Your task to perform on an android device: open a bookmark in the chrome app Image 0: 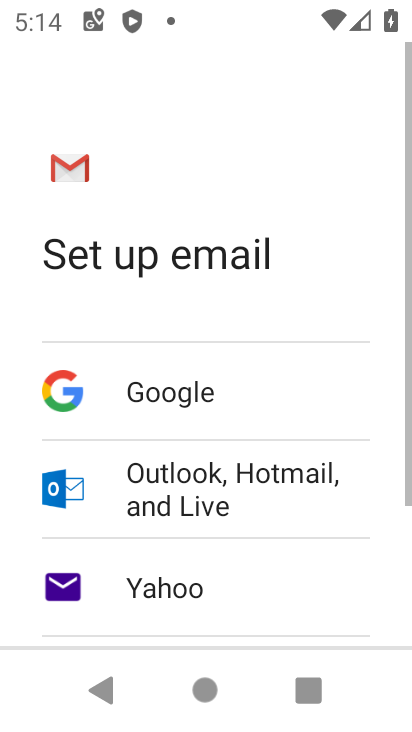
Step 0: press home button
Your task to perform on an android device: open a bookmark in the chrome app Image 1: 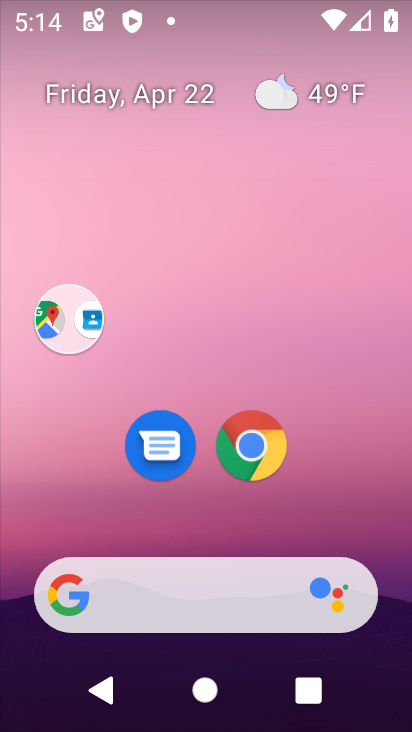
Step 1: click (259, 432)
Your task to perform on an android device: open a bookmark in the chrome app Image 2: 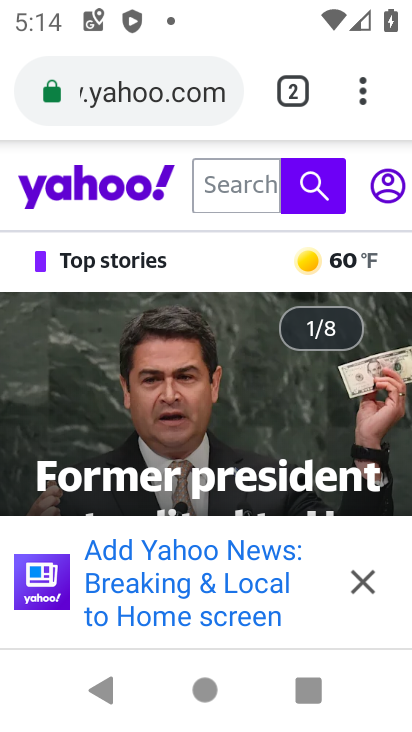
Step 2: task complete